Your task to perform on an android device: Open battery settings Image 0: 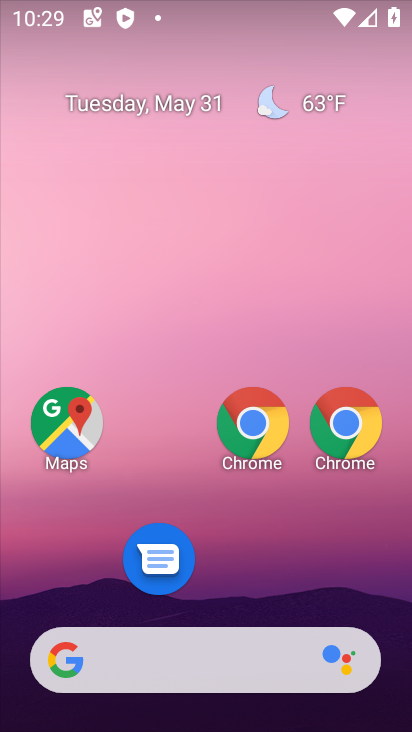
Step 0: drag from (274, 661) to (232, 83)
Your task to perform on an android device: Open battery settings Image 1: 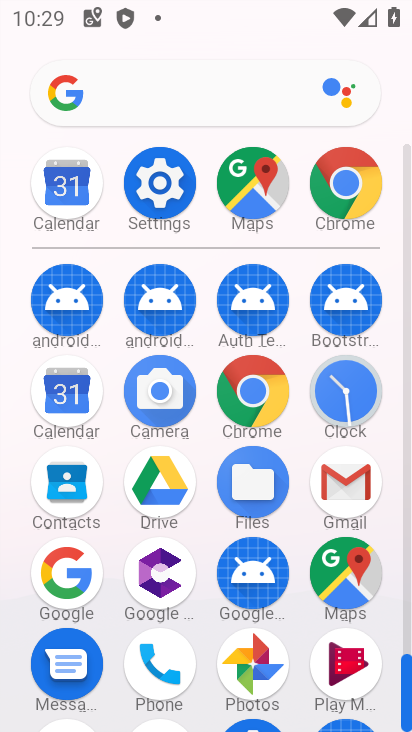
Step 1: click (148, 192)
Your task to perform on an android device: Open battery settings Image 2: 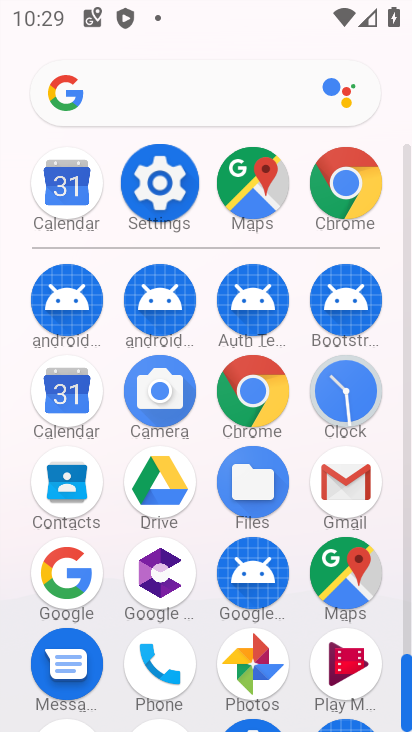
Step 2: click (154, 192)
Your task to perform on an android device: Open battery settings Image 3: 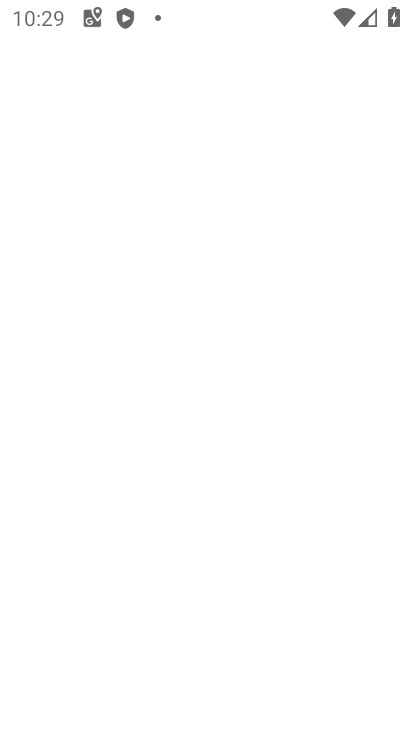
Step 3: click (156, 183)
Your task to perform on an android device: Open battery settings Image 4: 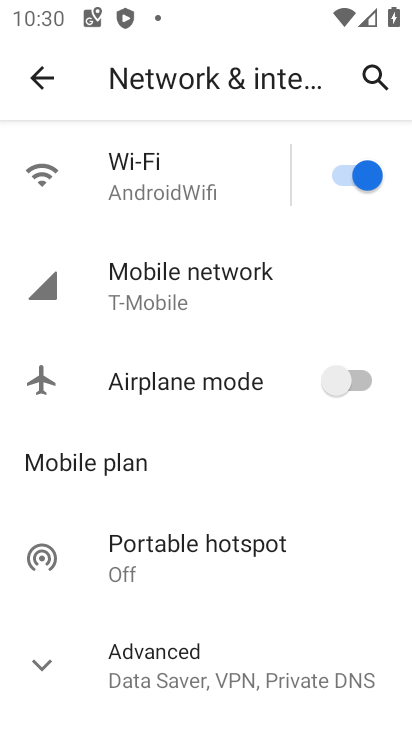
Step 4: click (39, 79)
Your task to perform on an android device: Open battery settings Image 5: 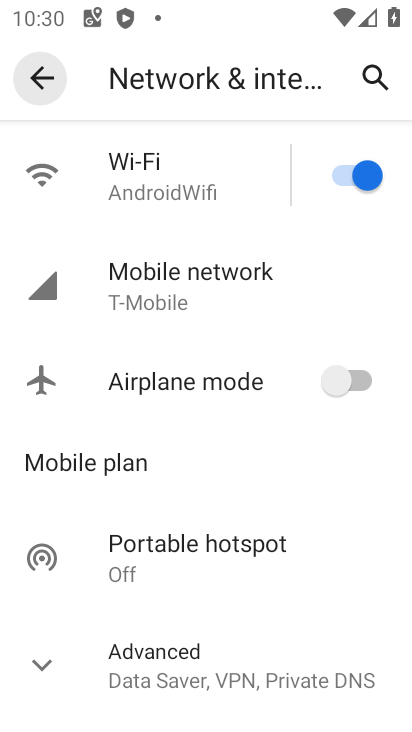
Step 5: click (36, 79)
Your task to perform on an android device: Open battery settings Image 6: 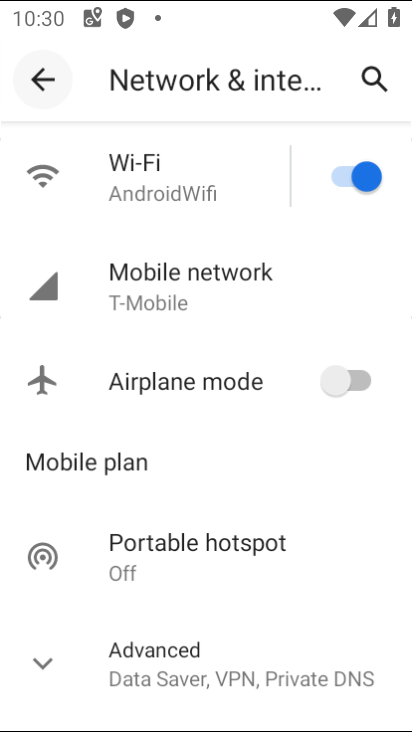
Step 6: click (36, 79)
Your task to perform on an android device: Open battery settings Image 7: 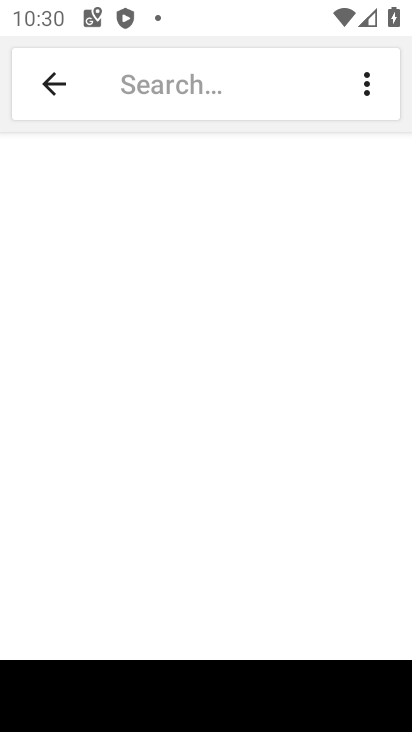
Step 7: click (58, 90)
Your task to perform on an android device: Open battery settings Image 8: 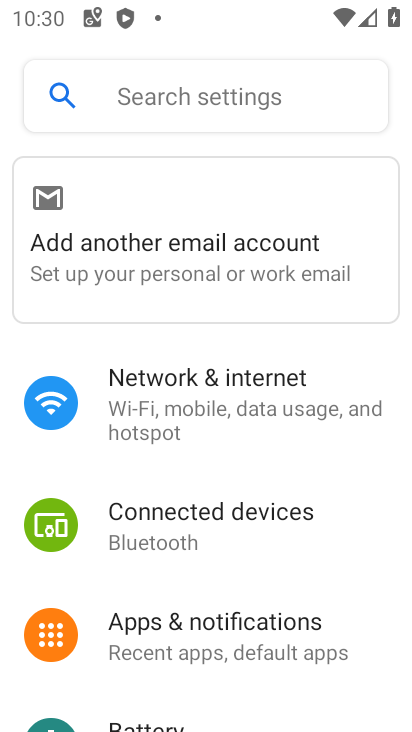
Step 8: drag from (224, 618) to (187, 331)
Your task to perform on an android device: Open battery settings Image 9: 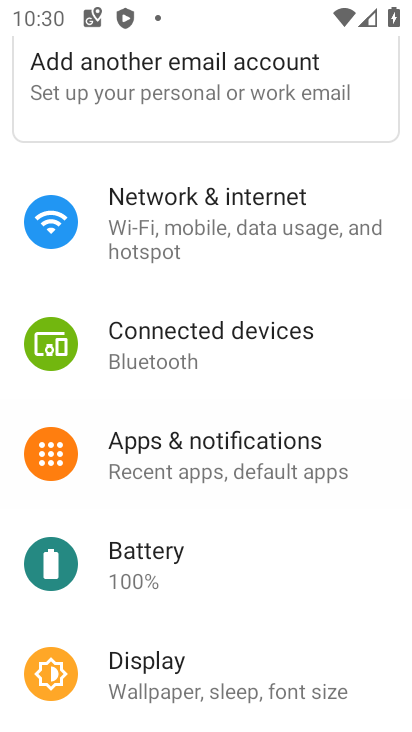
Step 9: drag from (237, 588) to (234, 324)
Your task to perform on an android device: Open battery settings Image 10: 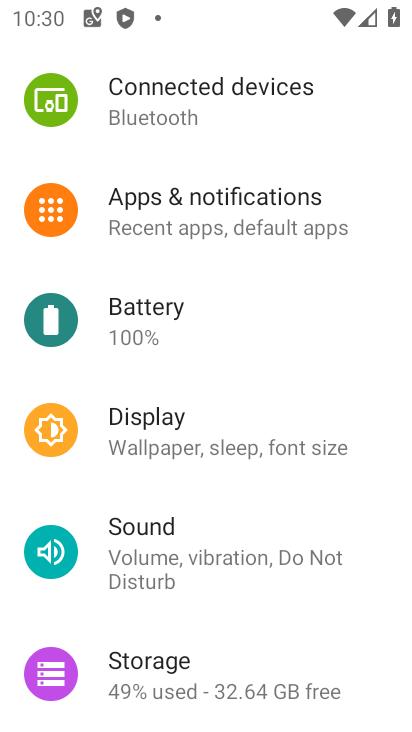
Step 10: click (136, 325)
Your task to perform on an android device: Open battery settings Image 11: 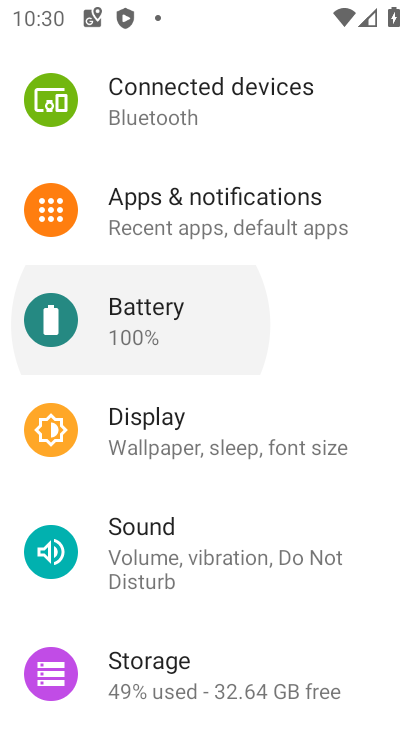
Step 11: click (138, 321)
Your task to perform on an android device: Open battery settings Image 12: 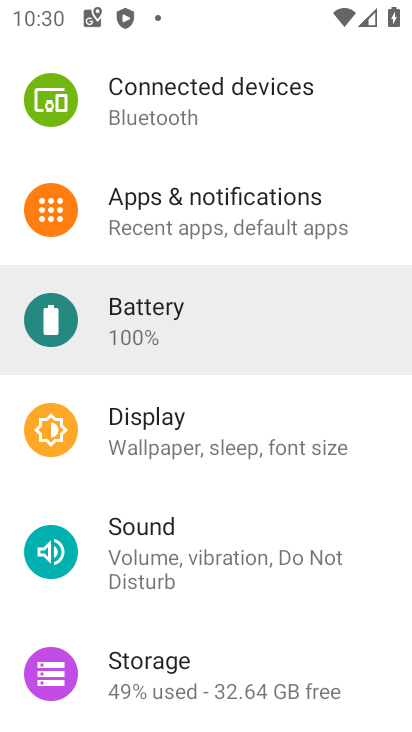
Step 12: click (135, 320)
Your task to perform on an android device: Open battery settings Image 13: 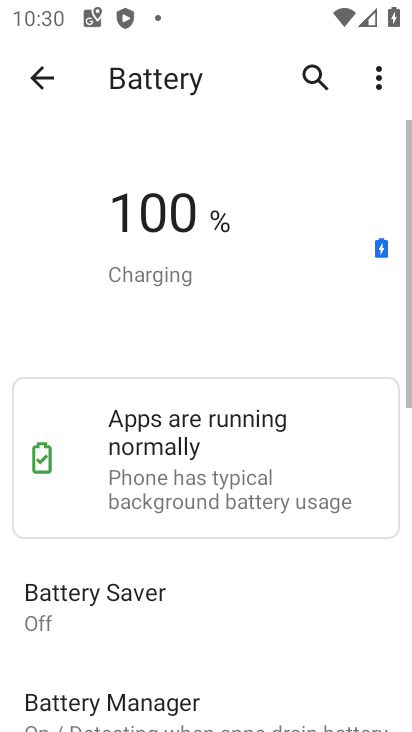
Step 13: task complete